Your task to perform on an android device: Search for "dell xps" on costco, select the first entry, add it to the cart, then select checkout. Image 0: 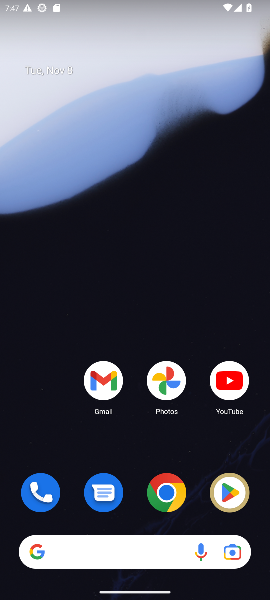
Step 0: click (173, 497)
Your task to perform on an android device: Search for "dell xps" on costco, select the first entry, add it to the cart, then select checkout. Image 1: 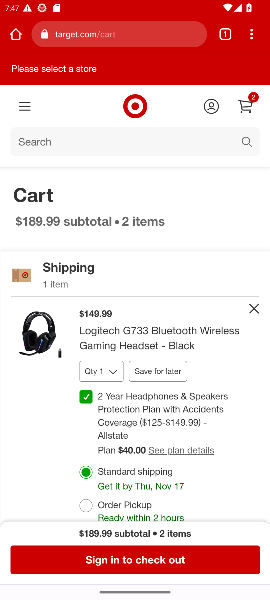
Step 1: click (119, 44)
Your task to perform on an android device: Search for "dell xps" on costco, select the first entry, add it to the cart, then select checkout. Image 2: 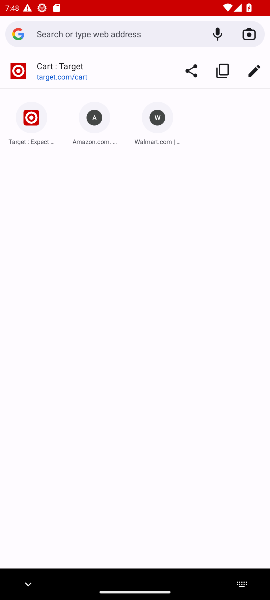
Step 2: type "cosco.com"
Your task to perform on an android device: Search for "dell xps" on costco, select the first entry, add it to the cart, then select checkout. Image 3: 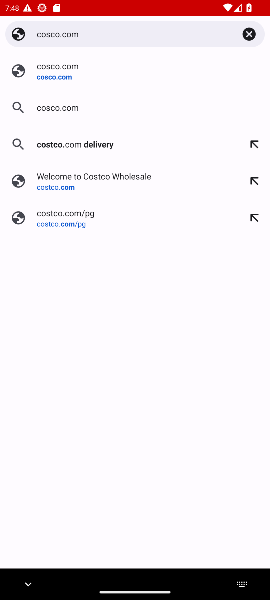
Step 3: press enter
Your task to perform on an android device: Search for "dell xps" on costco, select the first entry, add it to the cart, then select checkout. Image 4: 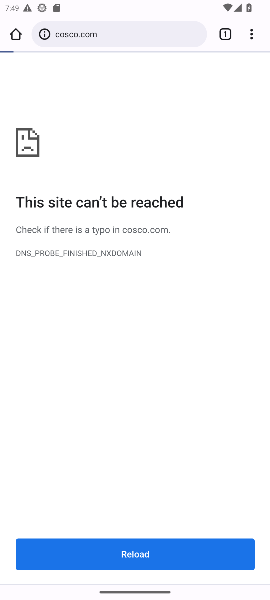
Step 4: click (137, 37)
Your task to perform on an android device: Search for "dell xps" on costco, select the first entry, add it to the cart, then select checkout. Image 5: 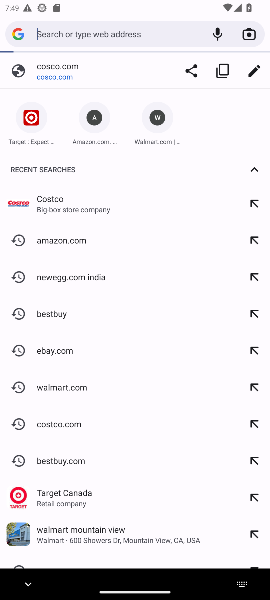
Step 5: type "costco"
Your task to perform on an android device: Search for "dell xps" on costco, select the first entry, add it to the cart, then select checkout. Image 6: 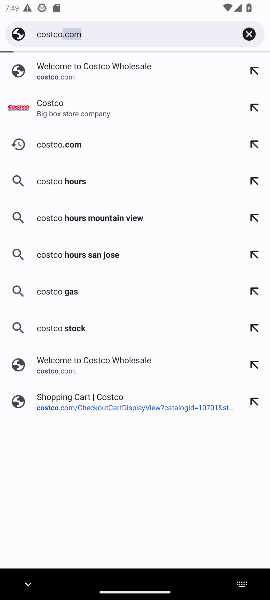
Step 6: press enter
Your task to perform on an android device: Search for "dell xps" on costco, select the first entry, add it to the cart, then select checkout. Image 7: 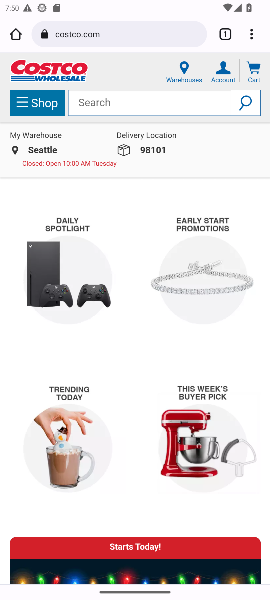
Step 7: click (141, 94)
Your task to perform on an android device: Search for "dell xps" on costco, select the first entry, add it to the cart, then select checkout. Image 8: 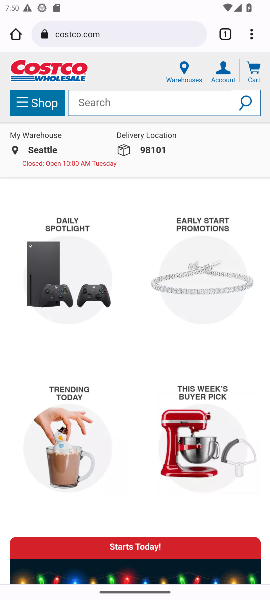
Step 8: click (138, 101)
Your task to perform on an android device: Search for "dell xps" on costco, select the first entry, add it to the cart, then select checkout. Image 9: 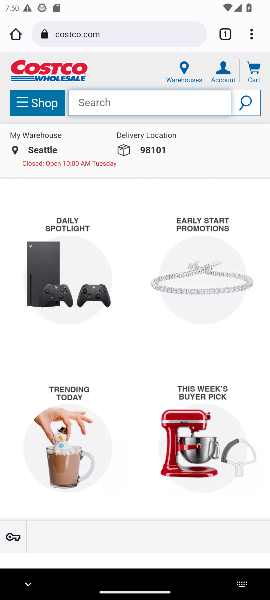
Step 9: type "dell xps"
Your task to perform on an android device: Search for "dell xps" on costco, select the first entry, add it to the cart, then select checkout. Image 10: 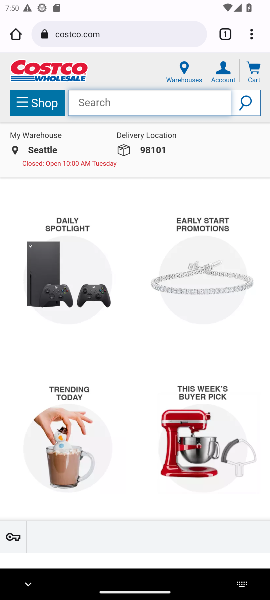
Step 10: press enter
Your task to perform on an android device: Search for "dell xps" on costco, select the first entry, add it to the cart, then select checkout. Image 11: 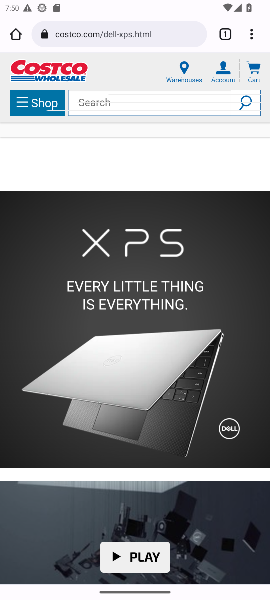
Step 11: drag from (170, 181) to (205, 43)
Your task to perform on an android device: Search for "dell xps" on costco, select the first entry, add it to the cart, then select checkout. Image 12: 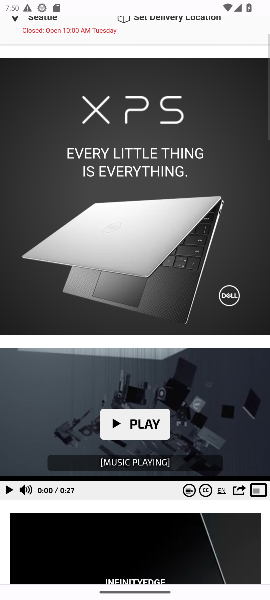
Step 12: drag from (173, 346) to (178, 139)
Your task to perform on an android device: Search for "dell xps" on costco, select the first entry, add it to the cart, then select checkout. Image 13: 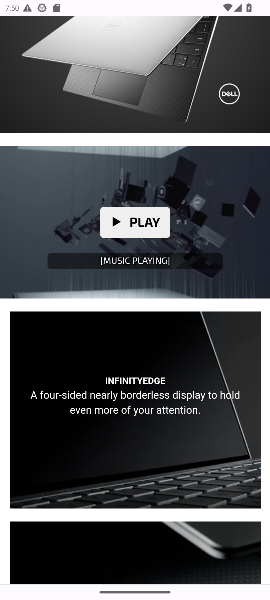
Step 13: drag from (195, 419) to (196, 543)
Your task to perform on an android device: Search for "dell xps" on costco, select the first entry, add it to the cart, then select checkout. Image 14: 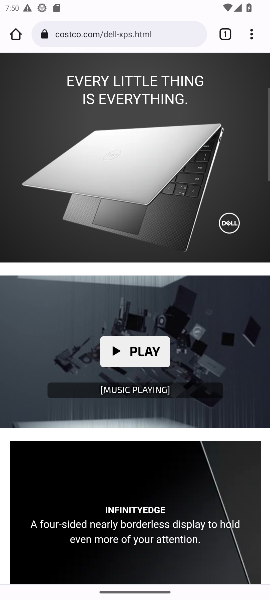
Step 14: drag from (199, 268) to (205, 567)
Your task to perform on an android device: Search for "dell xps" on costco, select the first entry, add it to the cart, then select checkout. Image 15: 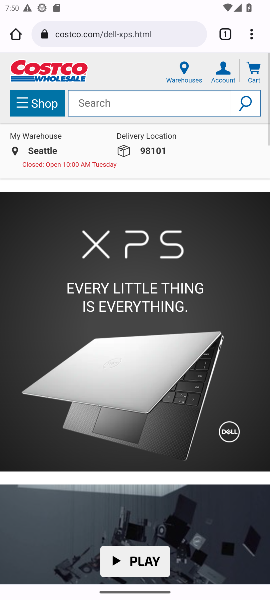
Step 15: drag from (194, 345) to (190, 476)
Your task to perform on an android device: Search for "dell xps" on costco, select the first entry, add it to the cart, then select checkout. Image 16: 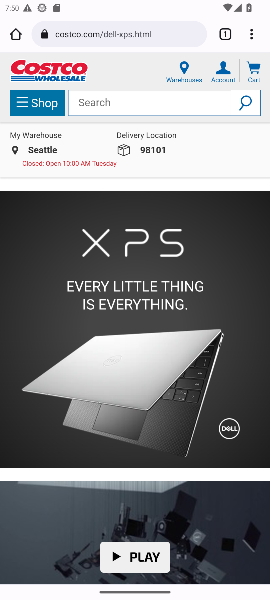
Step 16: click (143, 102)
Your task to perform on an android device: Search for "dell xps" on costco, select the first entry, add it to the cart, then select checkout. Image 17: 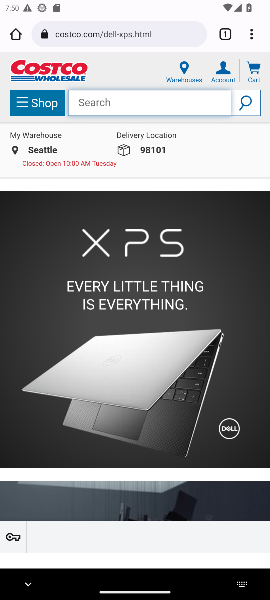
Step 17: type "dell xps"
Your task to perform on an android device: Search for "dell xps" on costco, select the first entry, add it to the cart, then select checkout. Image 18: 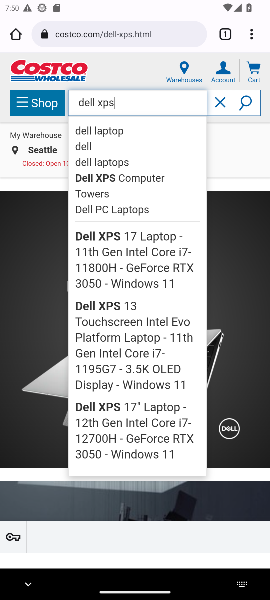
Step 18: press enter
Your task to perform on an android device: Search for "dell xps" on costco, select the first entry, add it to the cart, then select checkout. Image 19: 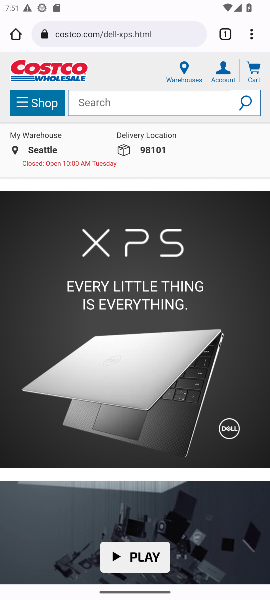
Step 19: click (188, 95)
Your task to perform on an android device: Search for "dell xps" on costco, select the first entry, add it to the cart, then select checkout. Image 20: 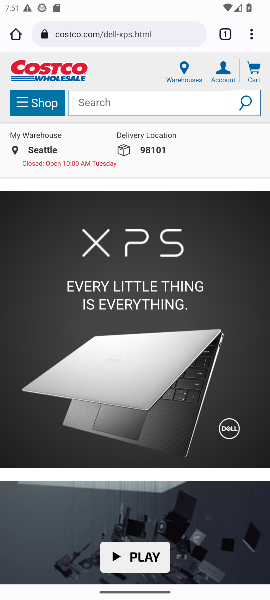
Step 20: click (177, 96)
Your task to perform on an android device: Search for "dell xps" on costco, select the first entry, add it to the cart, then select checkout. Image 21: 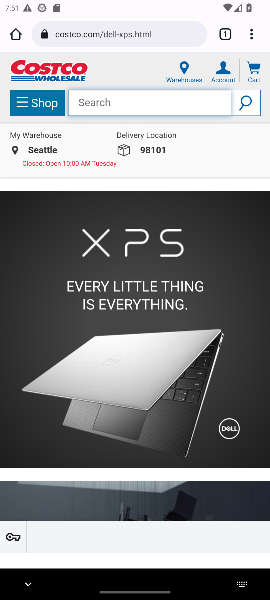
Step 21: click (186, 102)
Your task to perform on an android device: Search for "dell xps" on costco, select the first entry, add it to the cart, then select checkout. Image 22: 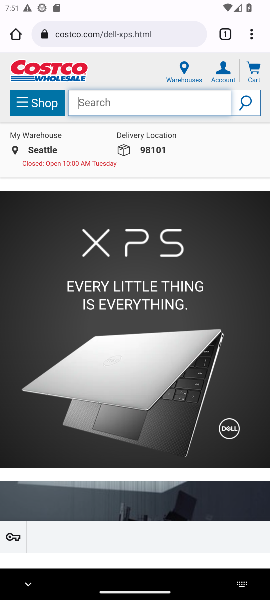
Step 22: type "dell xps"
Your task to perform on an android device: Search for "dell xps" on costco, select the first entry, add it to the cart, then select checkout. Image 23: 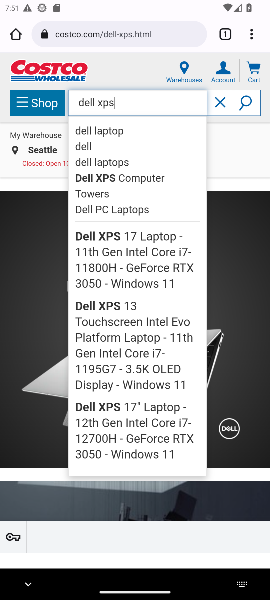
Step 23: press enter
Your task to perform on an android device: Search for "dell xps" on costco, select the first entry, add it to the cart, then select checkout. Image 24: 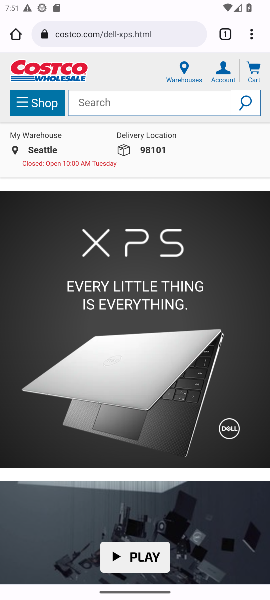
Step 24: task complete